Your task to perform on an android device: open app "AliExpress" Image 0: 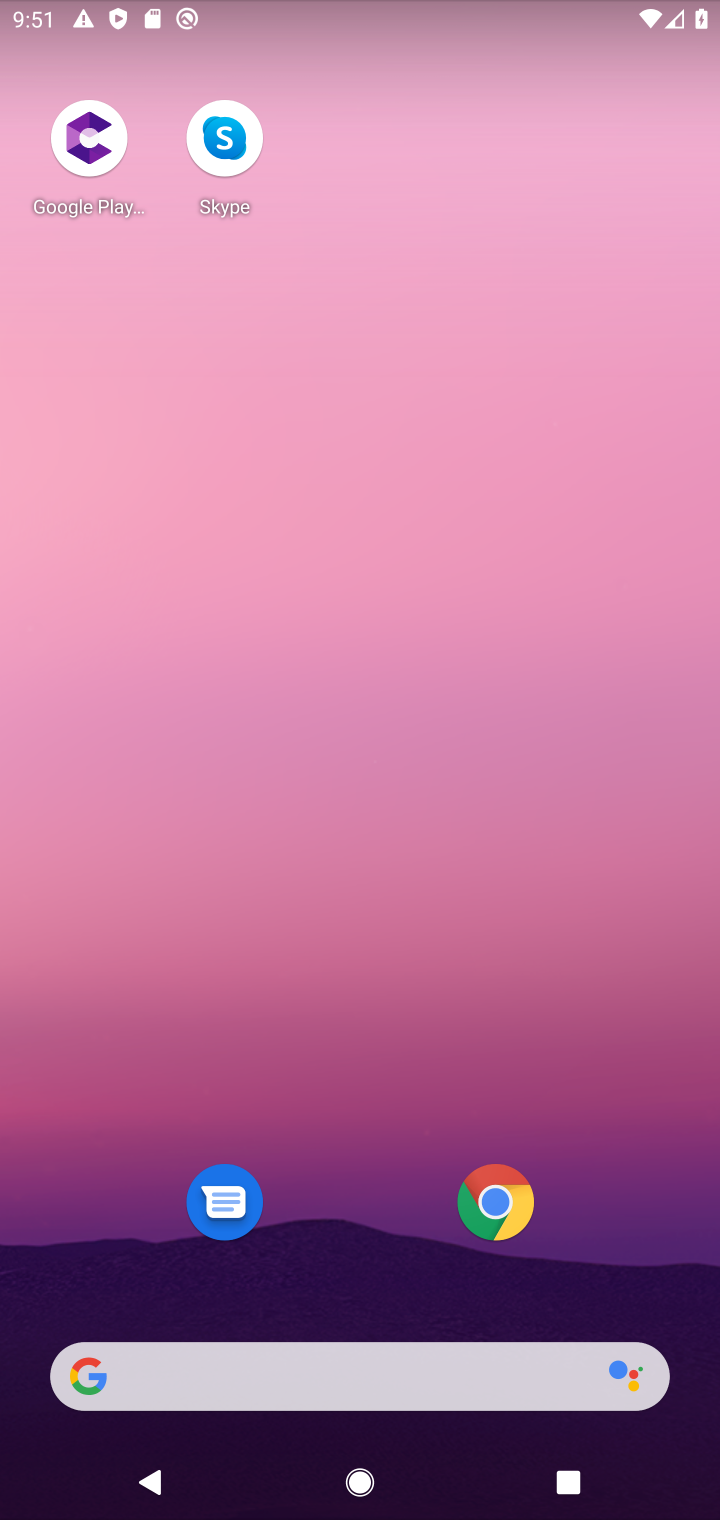
Step 0: click (356, 1363)
Your task to perform on an android device: open app "AliExpress" Image 1: 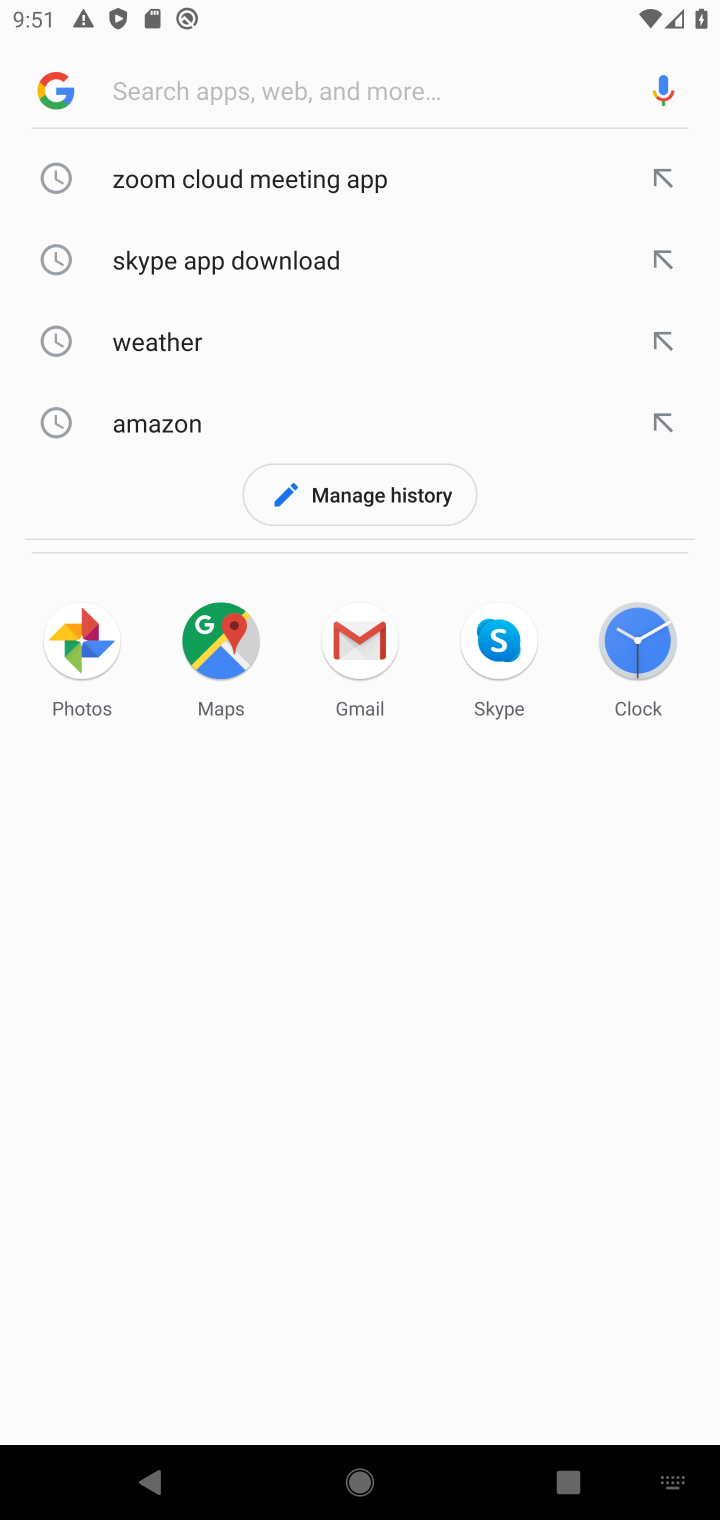
Step 1: type "aliexpress"
Your task to perform on an android device: open app "AliExpress" Image 2: 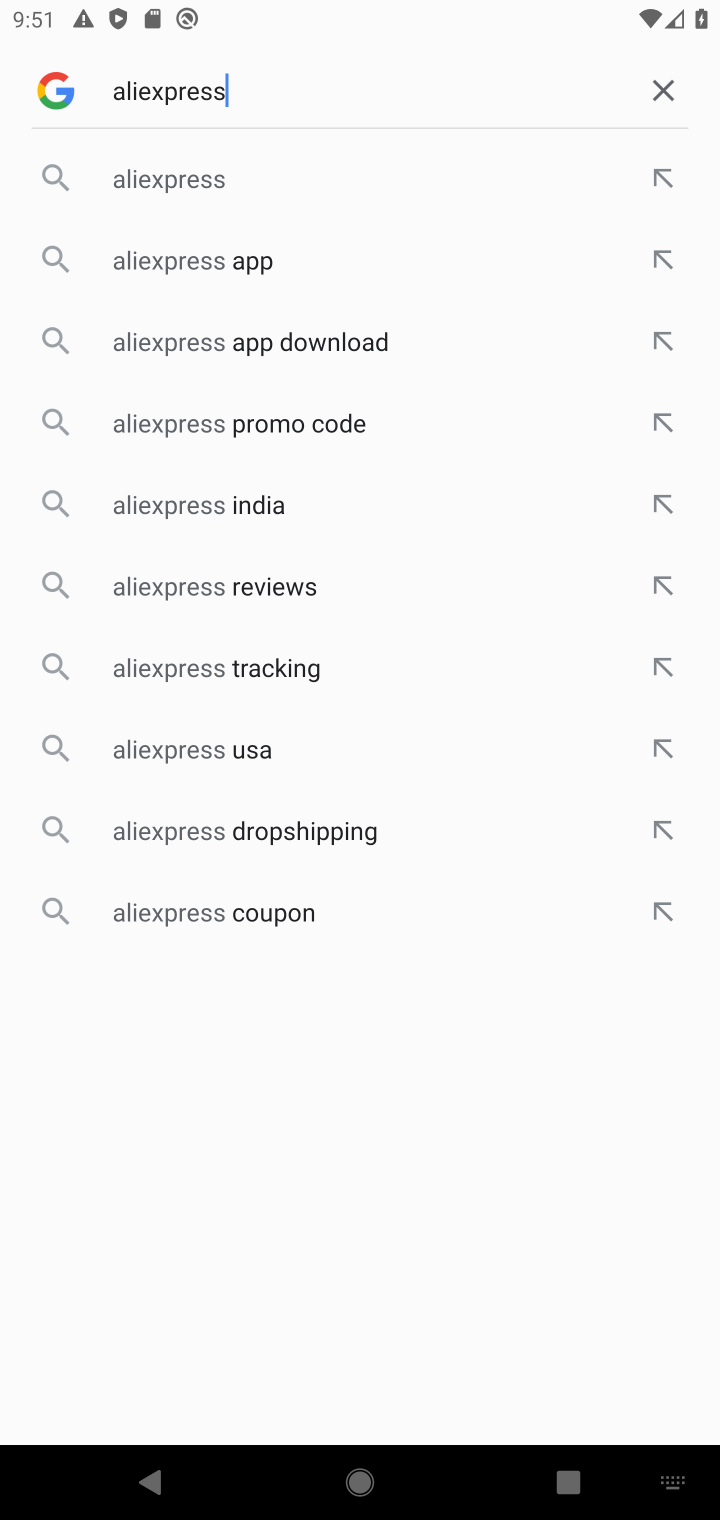
Step 2: click (388, 203)
Your task to perform on an android device: open app "AliExpress" Image 3: 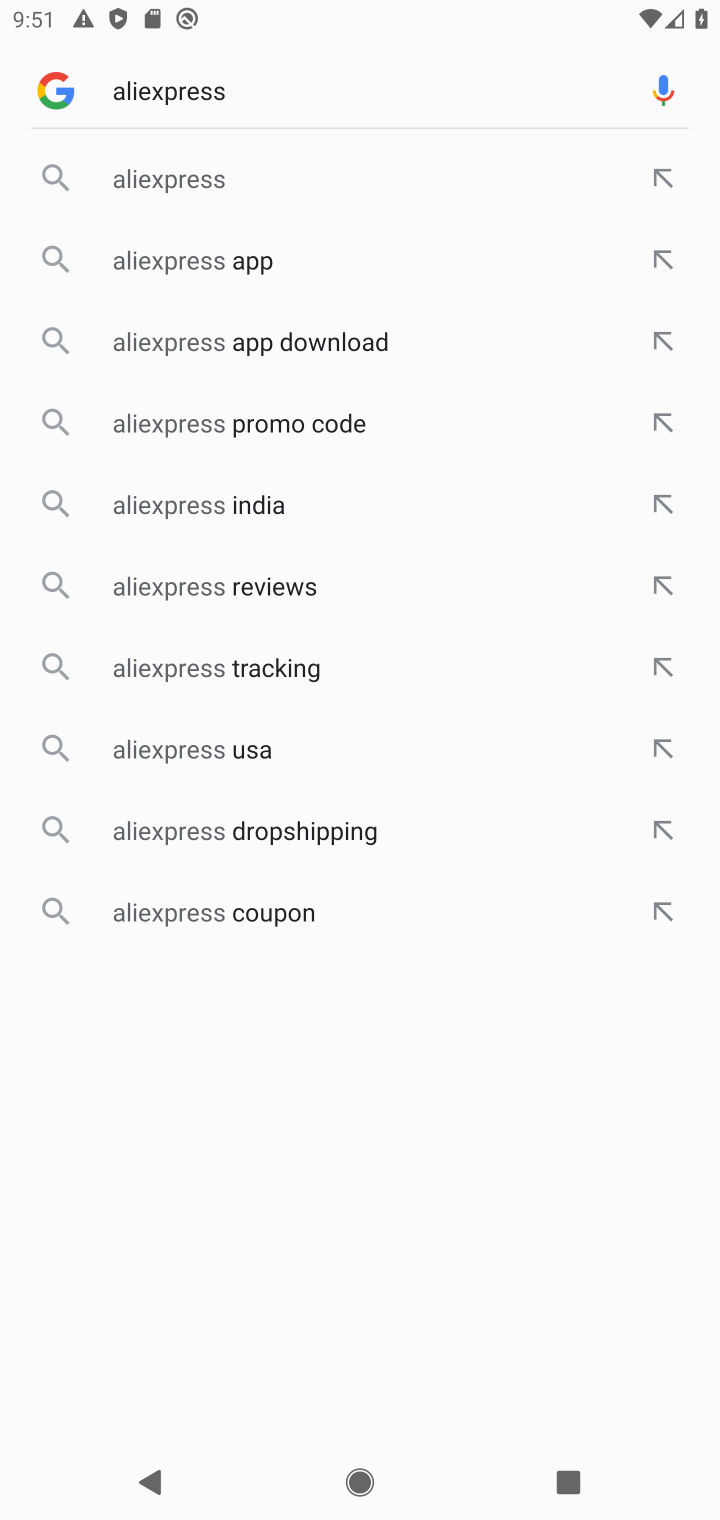
Step 3: task complete